Your task to perform on an android device: turn on the 12-hour format for clock Image 0: 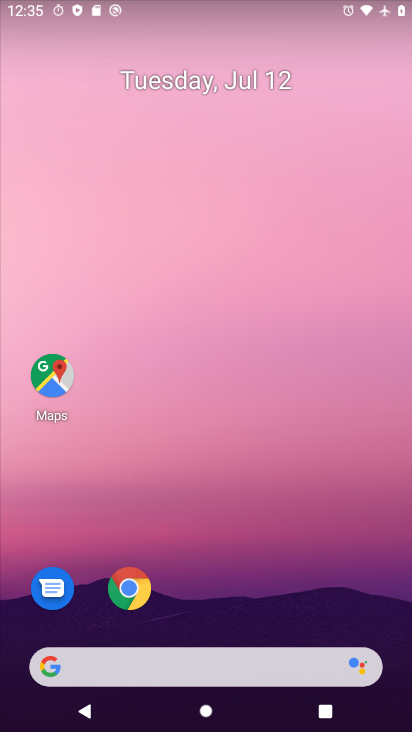
Step 0: drag from (150, 656) to (272, 34)
Your task to perform on an android device: turn on the 12-hour format for clock Image 1: 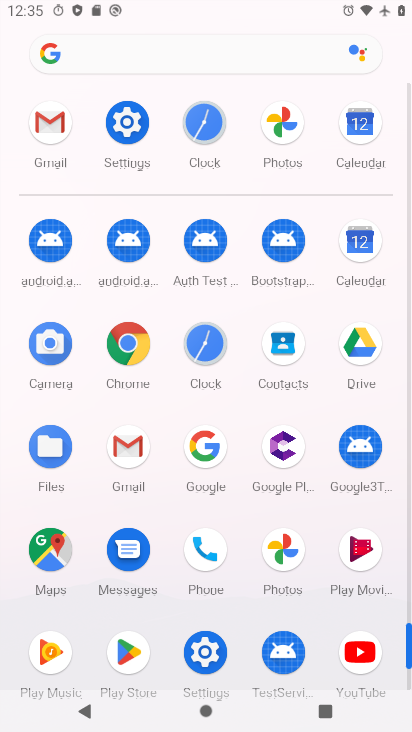
Step 1: click (203, 346)
Your task to perform on an android device: turn on the 12-hour format for clock Image 2: 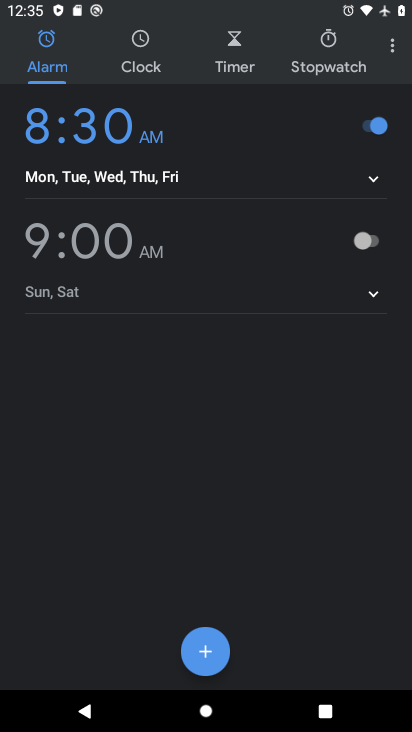
Step 2: click (395, 44)
Your task to perform on an android device: turn on the 12-hour format for clock Image 3: 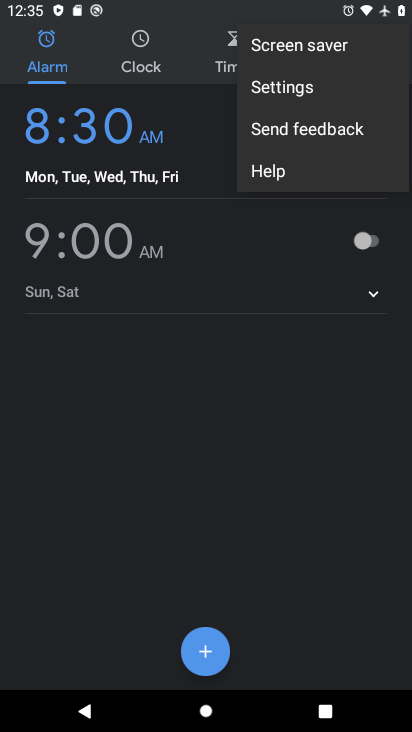
Step 3: click (309, 93)
Your task to perform on an android device: turn on the 12-hour format for clock Image 4: 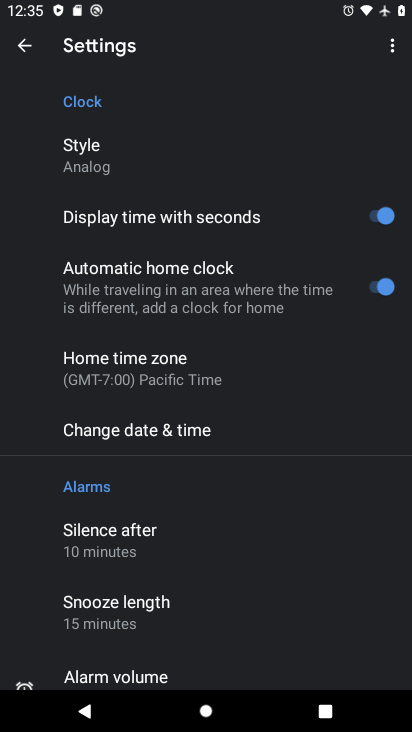
Step 4: drag from (253, 544) to (298, 332)
Your task to perform on an android device: turn on the 12-hour format for clock Image 5: 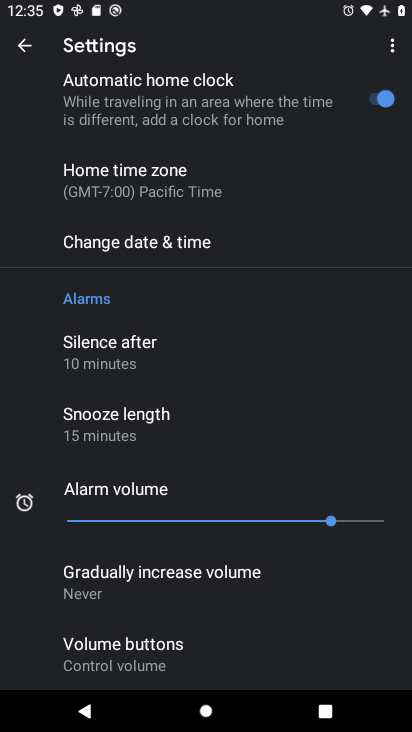
Step 5: click (158, 245)
Your task to perform on an android device: turn on the 12-hour format for clock Image 6: 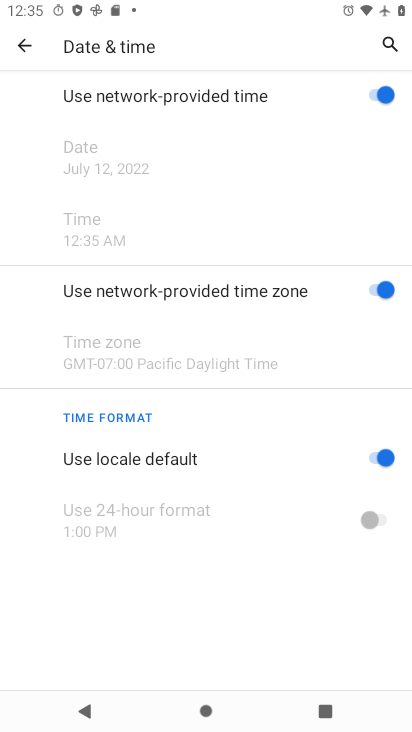
Step 6: task complete